Your task to perform on an android device: Open Reddit.com Image 0: 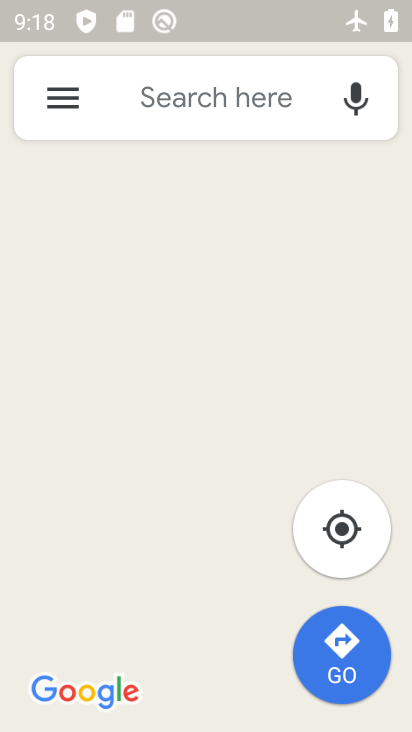
Step 0: press home button
Your task to perform on an android device: Open Reddit.com Image 1: 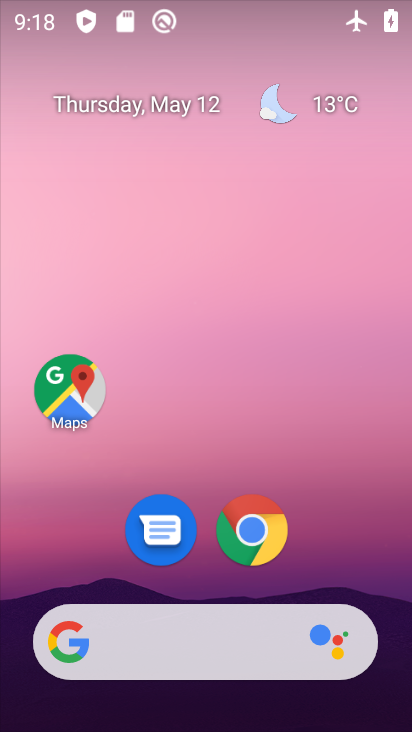
Step 1: drag from (330, 538) to (273, 125)
Your task to perform on an android device: Open Reddit.com Image 2: 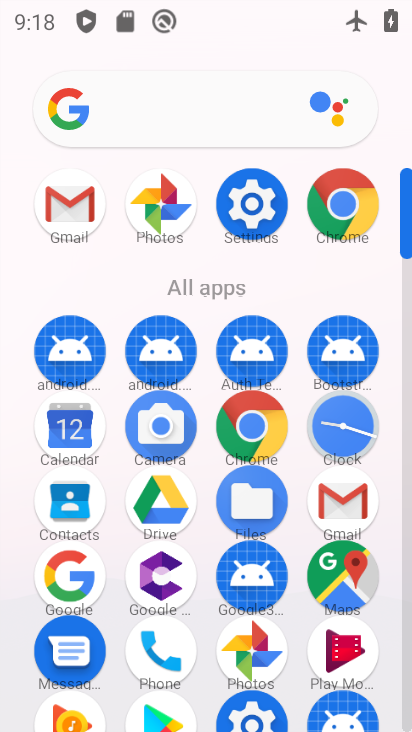
Step 2: click (348, 230)
Your task to perform on an android device: Open Reddit.com Image 3: 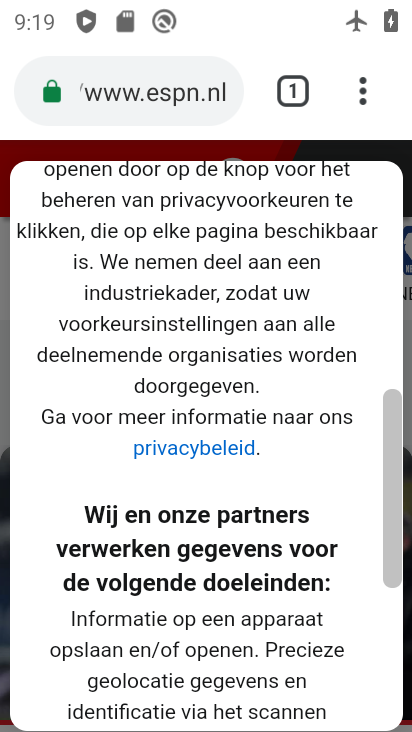
Step 3: click (283, 84)
Your task to perform on an android device: Open Reddit.com Image 4: 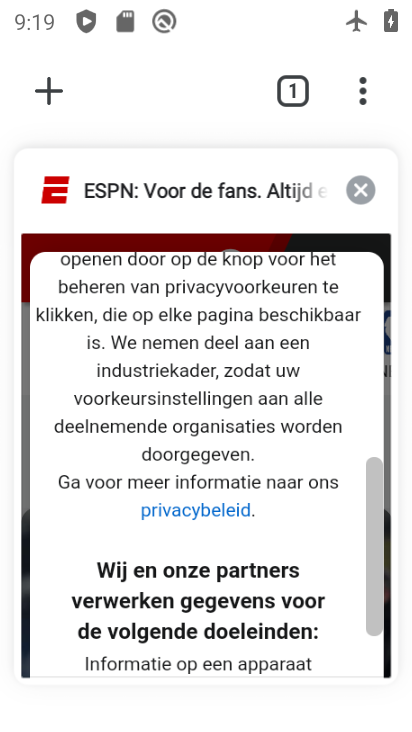
Step 4: click (45, 85)
Your task to perform on an android device: Open Reddit.com Image 5: 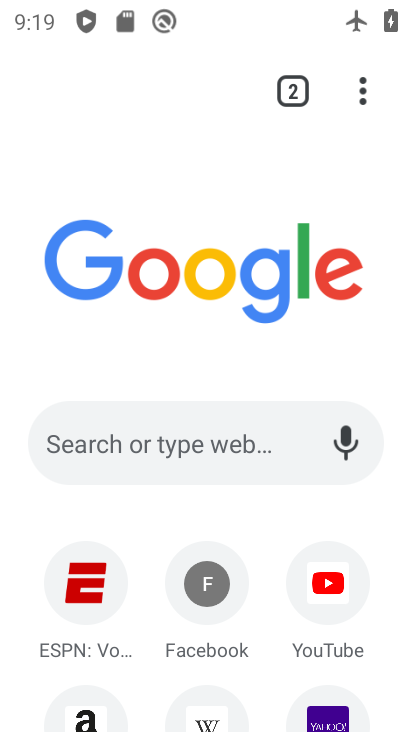
Step 5: drag from (276, 545) to (230, 189)
Your task to perform on an android device: Open Reddit.com Image 6: 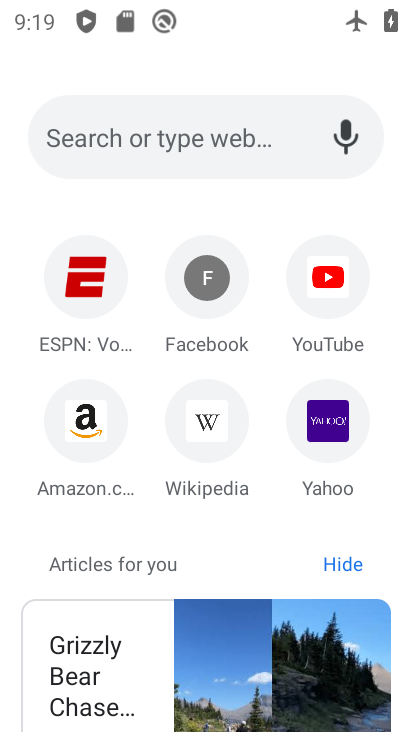
Step 6: click (152, 146)
Your task to perform on an android device: Open Reddit.com Image 7: 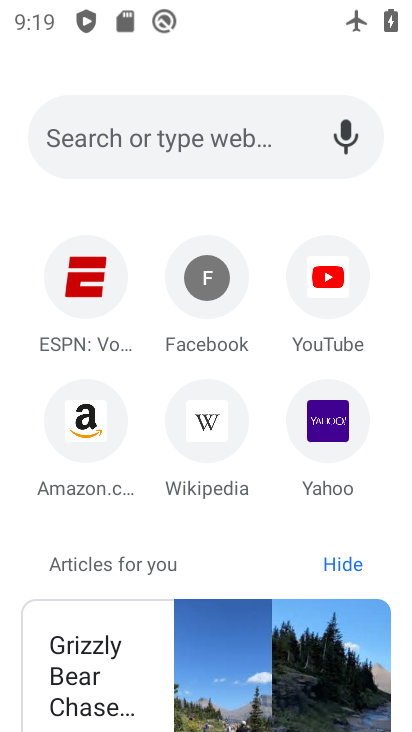
Step 7: click (164, 128)
Your task to perform on an android device: Open Reddit.com Image 8: 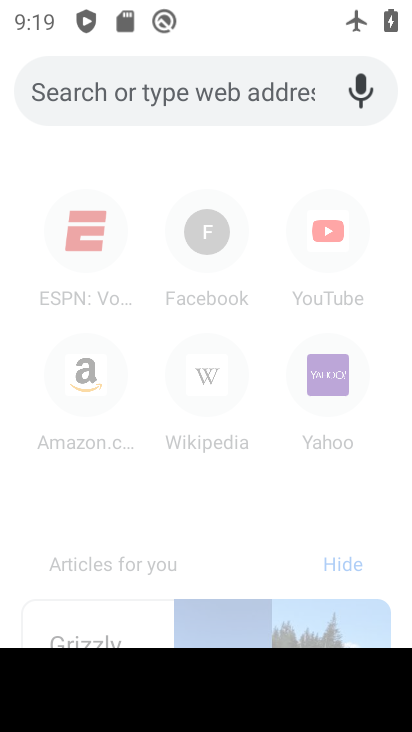
Step 8: type "reddit.com"
Your task to perform on an android device: Open Reddit.com Image 9: 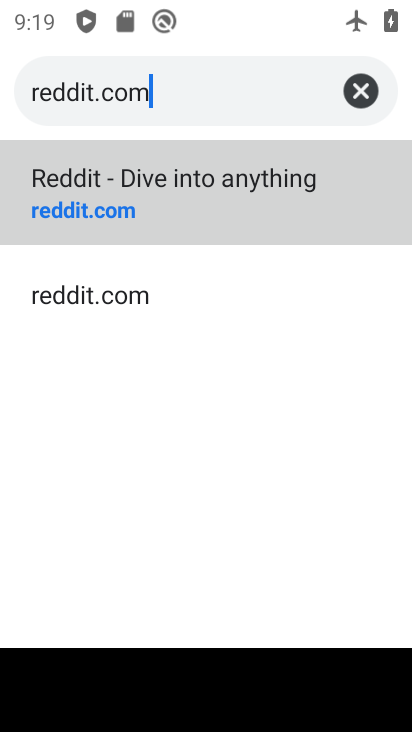
Step 9: click (350, 275)
Your task to perform on an android device: Open Reddit.com Image 10: 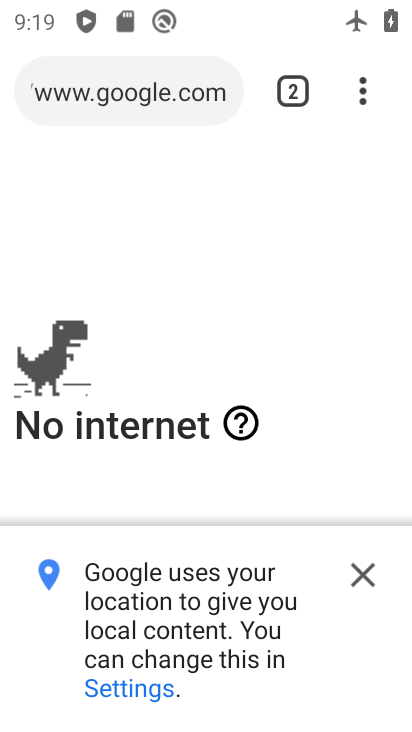
Step 10: drag from (347, 1) to (313, 443)
Your task to perform on an android device: Open Reddit.com Image 11: 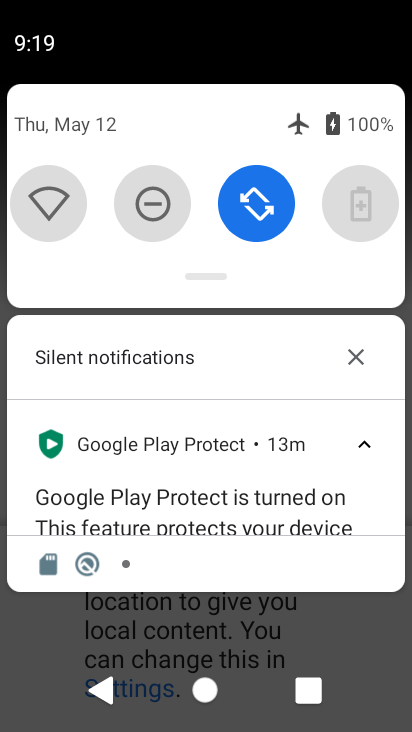
Step 11: drag from (355, 199) to (129, 127)
Your task to perform on an android device: Open Reddit.com Image 12: 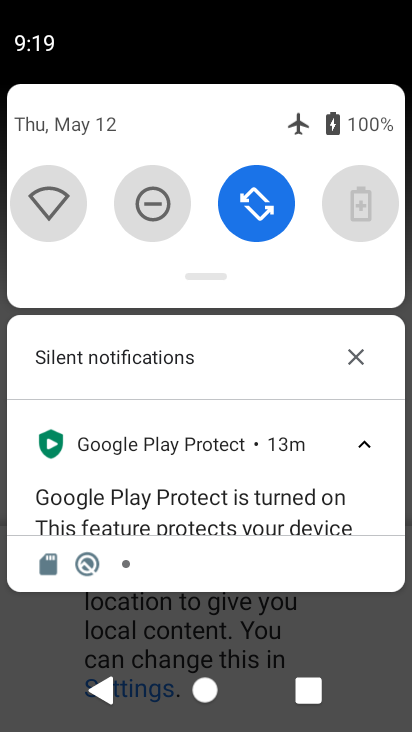
Step 12: drag from (227, 261) to (167, 591)
Your task to perform on an android device: Open Reddit.com Image 13: 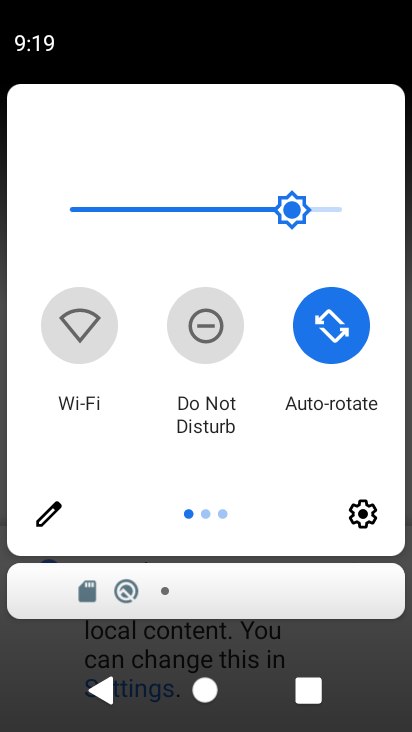
Step 13: drag from (326, 418) to (65, 348)
Your task to perform on an android device: Open Reddit.com Image 14: 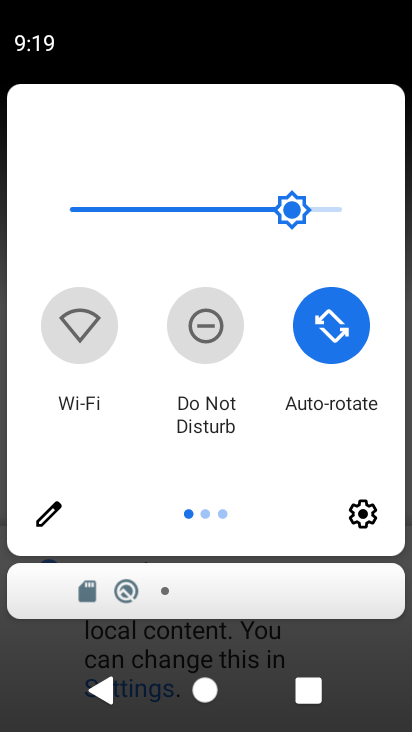
Step 14: drag from (341, 449) to (86, 321)
Your task to perform on an android device: Open Reddit.com Image 15: 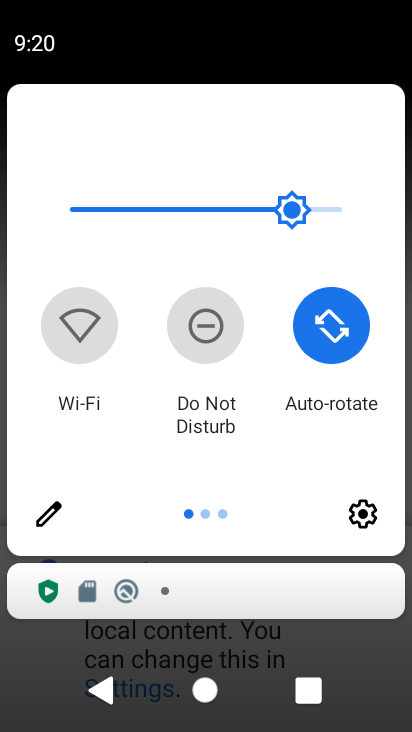
Step 15: drag from (355, 437) to (3, 461)
Your task to perform on an android device: Open Reddit.com Image 16: 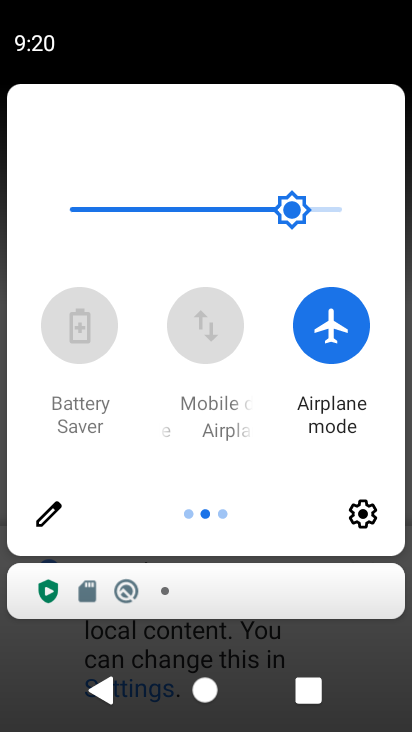
Step 16: click (324, 330)
Your task to perform on an android device: Open Reddit.com Image 17: 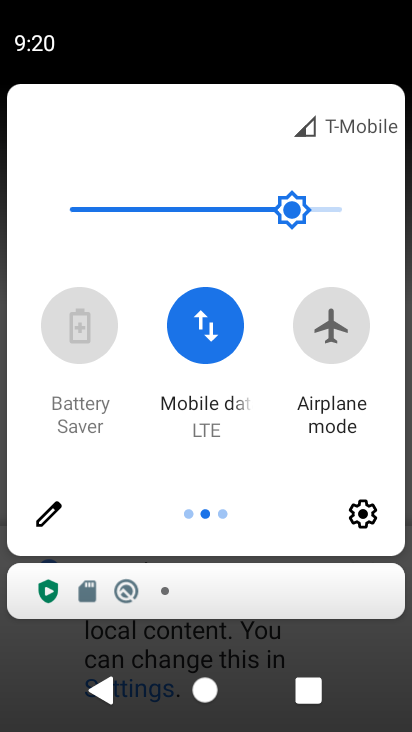
Step 17: drag from (144, 436) to (317, 383)
Your task to perform on an android device: Open Reddit.com Image 18: 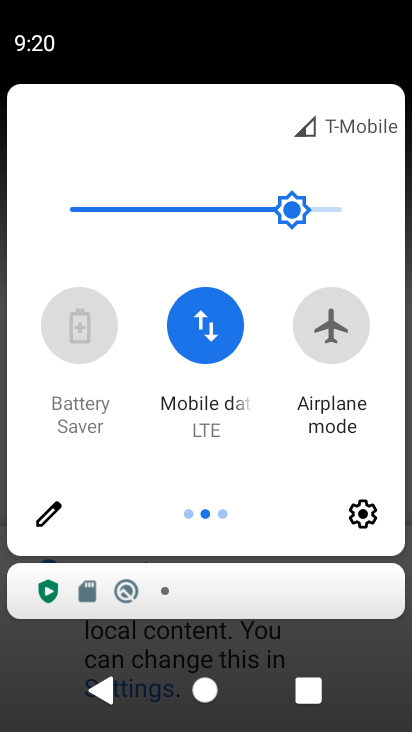
Step 18: drag from (355, 430) to (41, 468)
Your task to perform on an android device: Open Reddit.com Image 19: 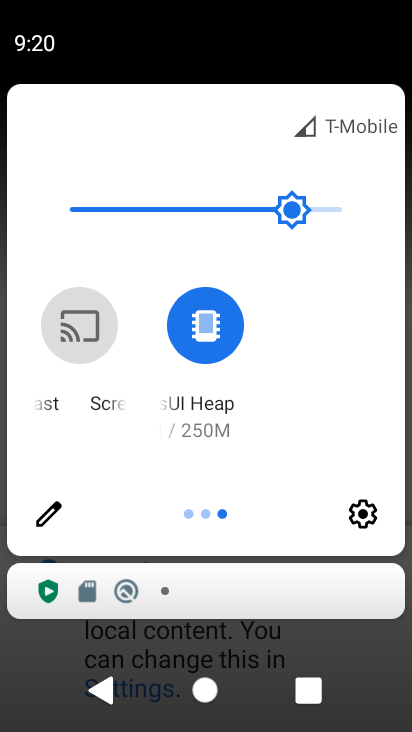
Step 19: drag from (63, 448) to (411, 424)
Your task to perform on an android device: Open Reddit.com Image 20: 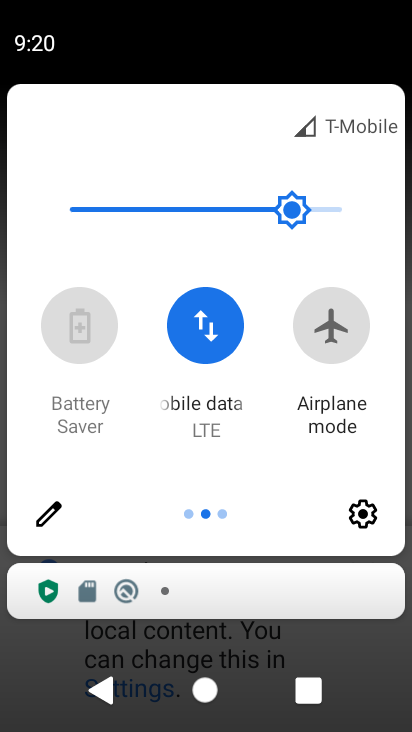
Step 20: drag from (88, 506) to (410, 469)
Your task to perform on an android device: Open Reddit.com Image 21: 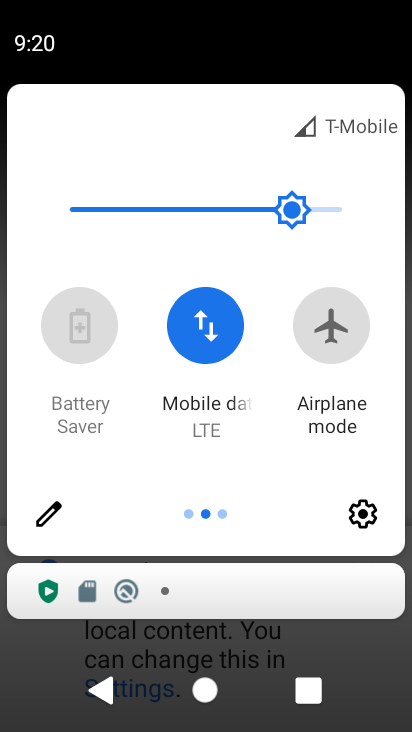
Step 21: drag from (125, 465) to (365, 463)
Your task to perform on an android device: Open Reddit.com Image 22: 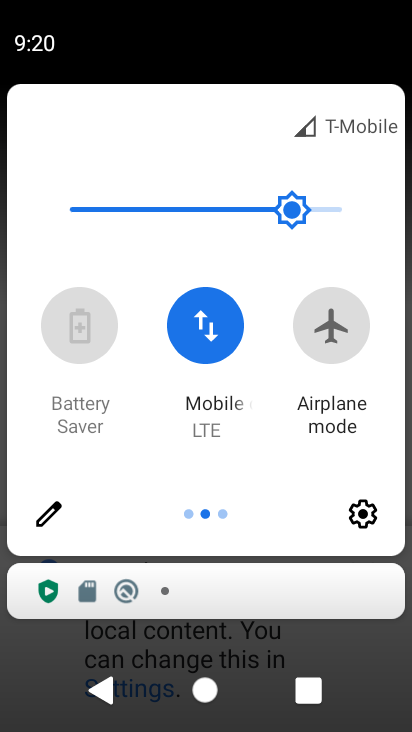
Step 22: drag from (138, 457) to (411, 435)
Your task to perform on an android device: Open Reddit.com Image 23: 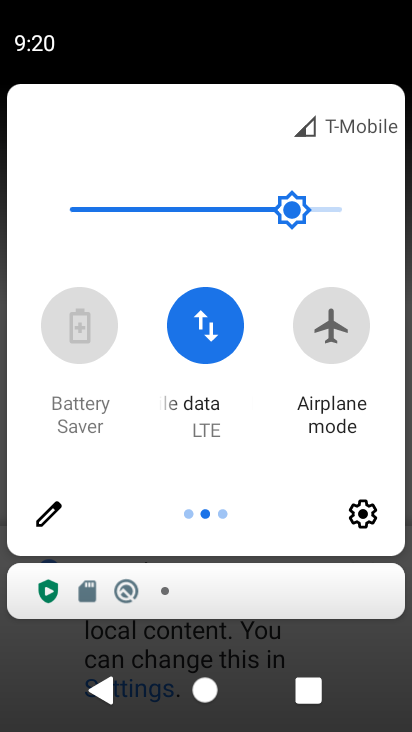
Step 23: drag from (141, 469) to (264, 446)
Your task to perform on an android device: Open Reddit.com Image 24: 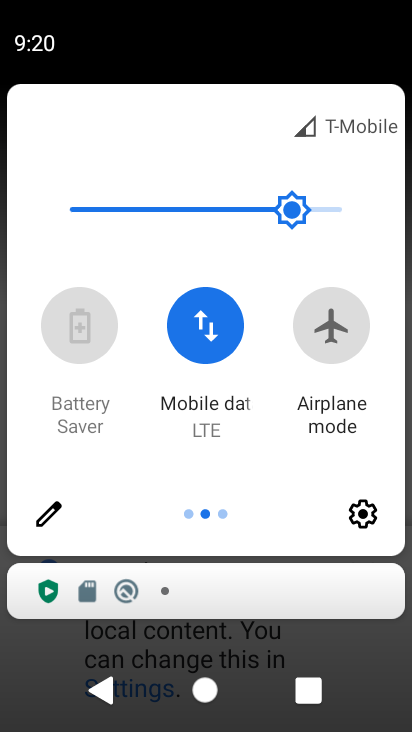
Step 24: click (368, 512)
Your task to perform on an android device: Open Reddit.com Image 25: 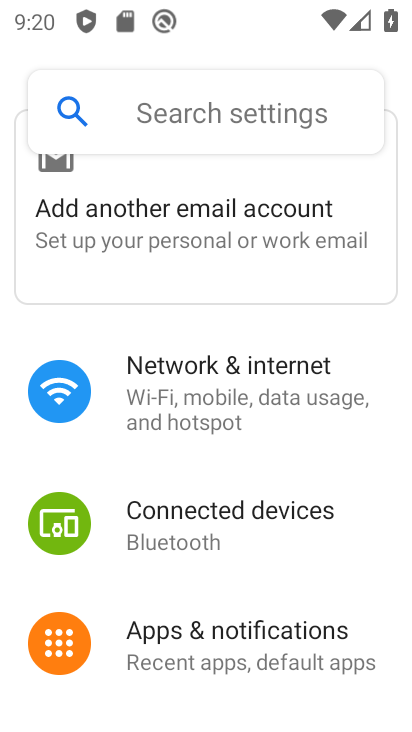
Step 25: click (198, 413)
Your task to perform on an android device: Open Reddit.com Image 26: 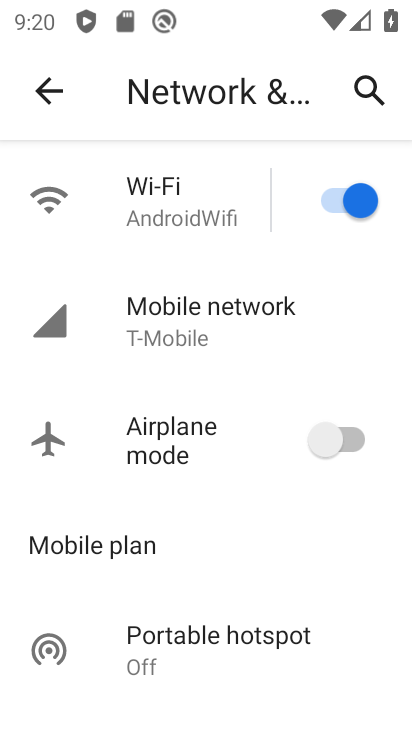
Step 26: task complete